Your task to perform on an android device: Add dell alienware to the cart on costco.com Image 0: 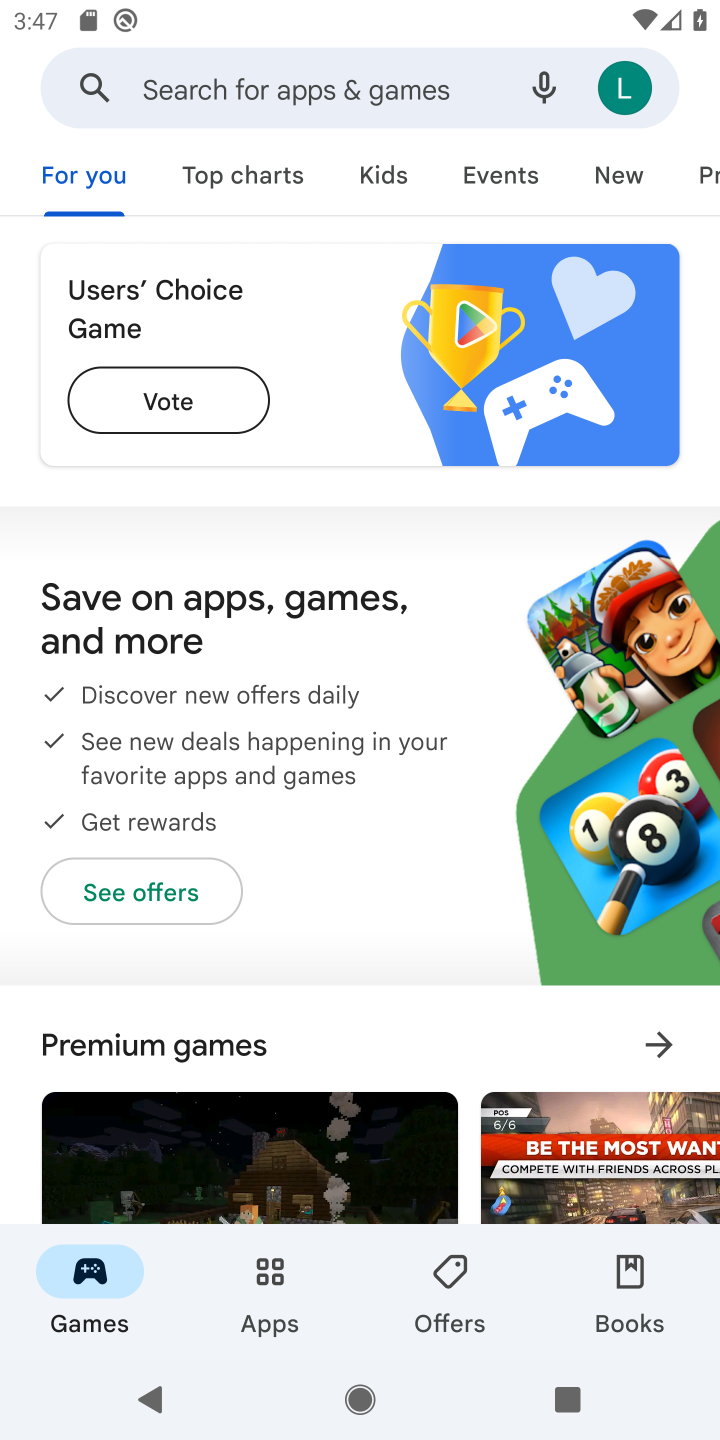
Step 0: press home button
Your task to perform on an android device: Add dell alienware to the cart on costco.com Image 1: 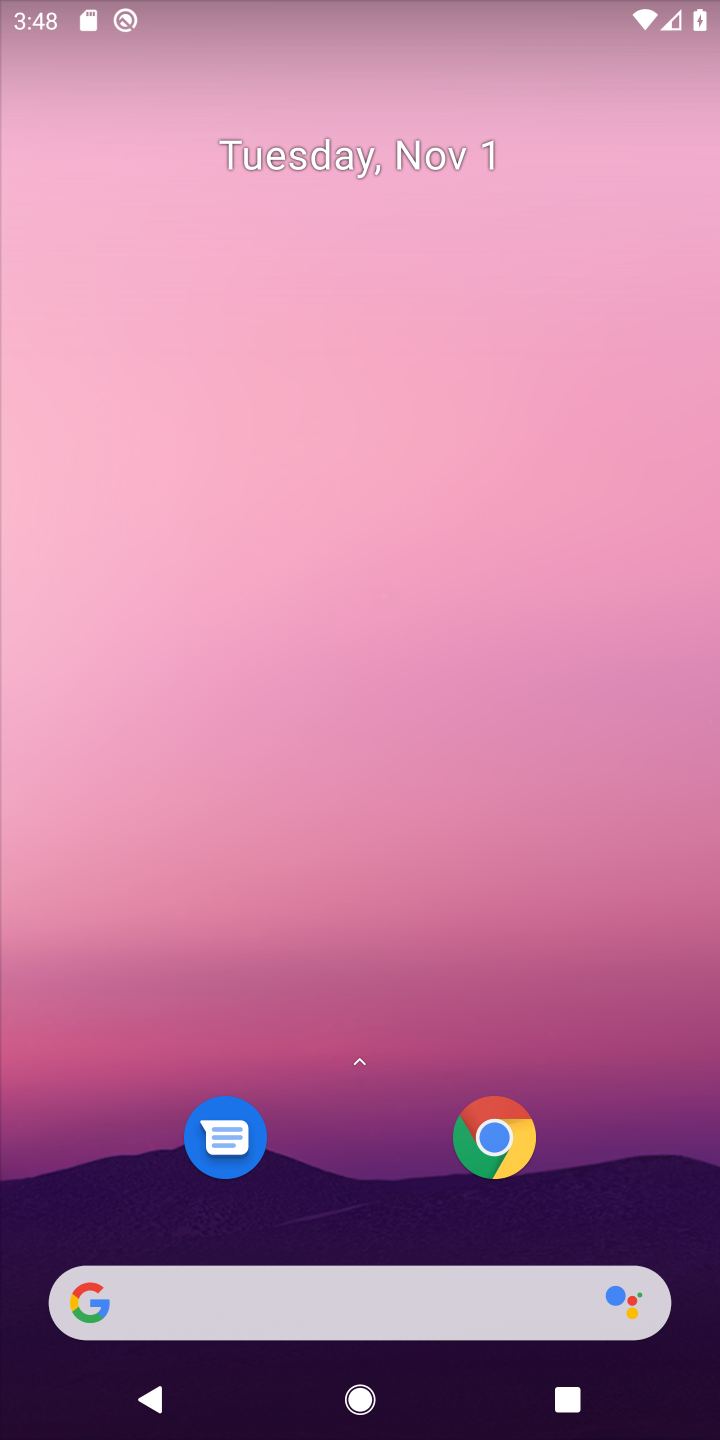
Step 1: click (375, 1308)
Your task to perform on an android device: Add dell alienware to the cart on costco.com Image 2: 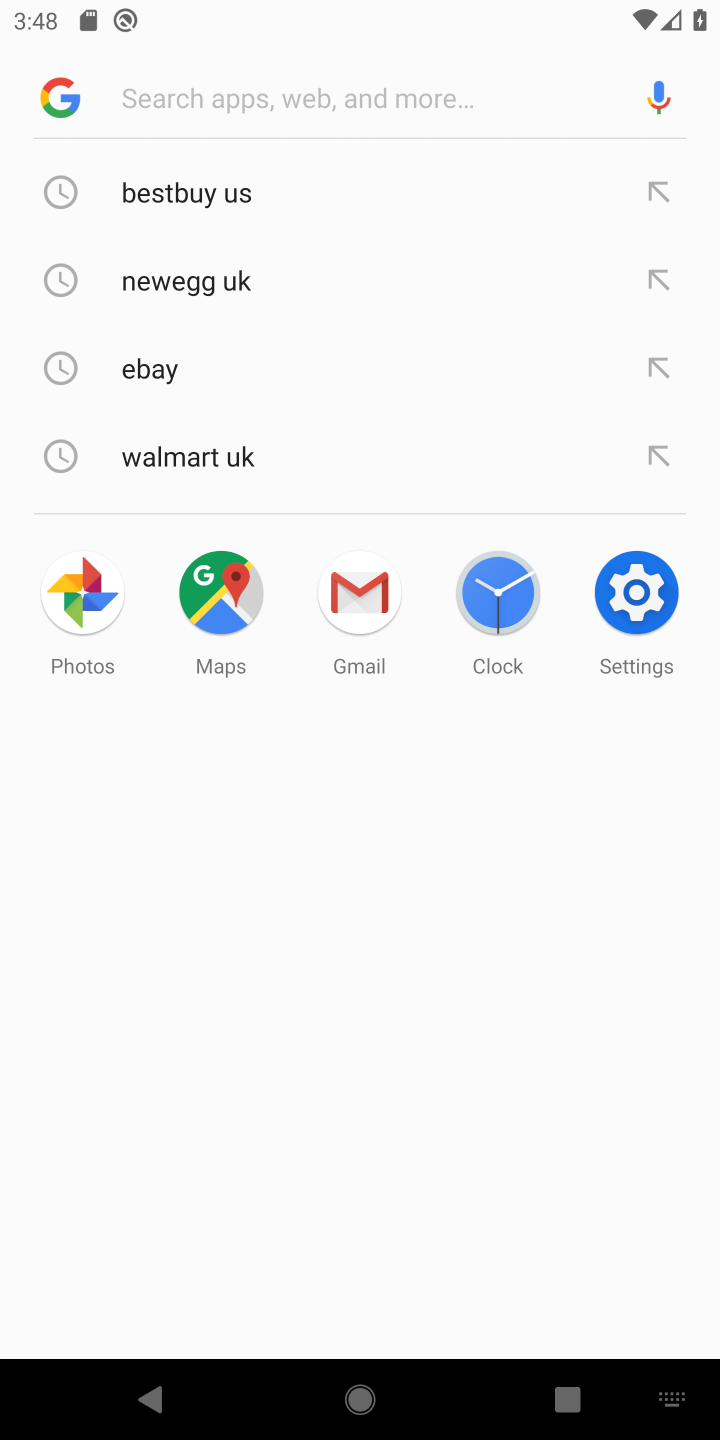
Step 2: type "costco"
Your task to perform on an android device: Add dell alienware to the cart on costco.com Image 3: 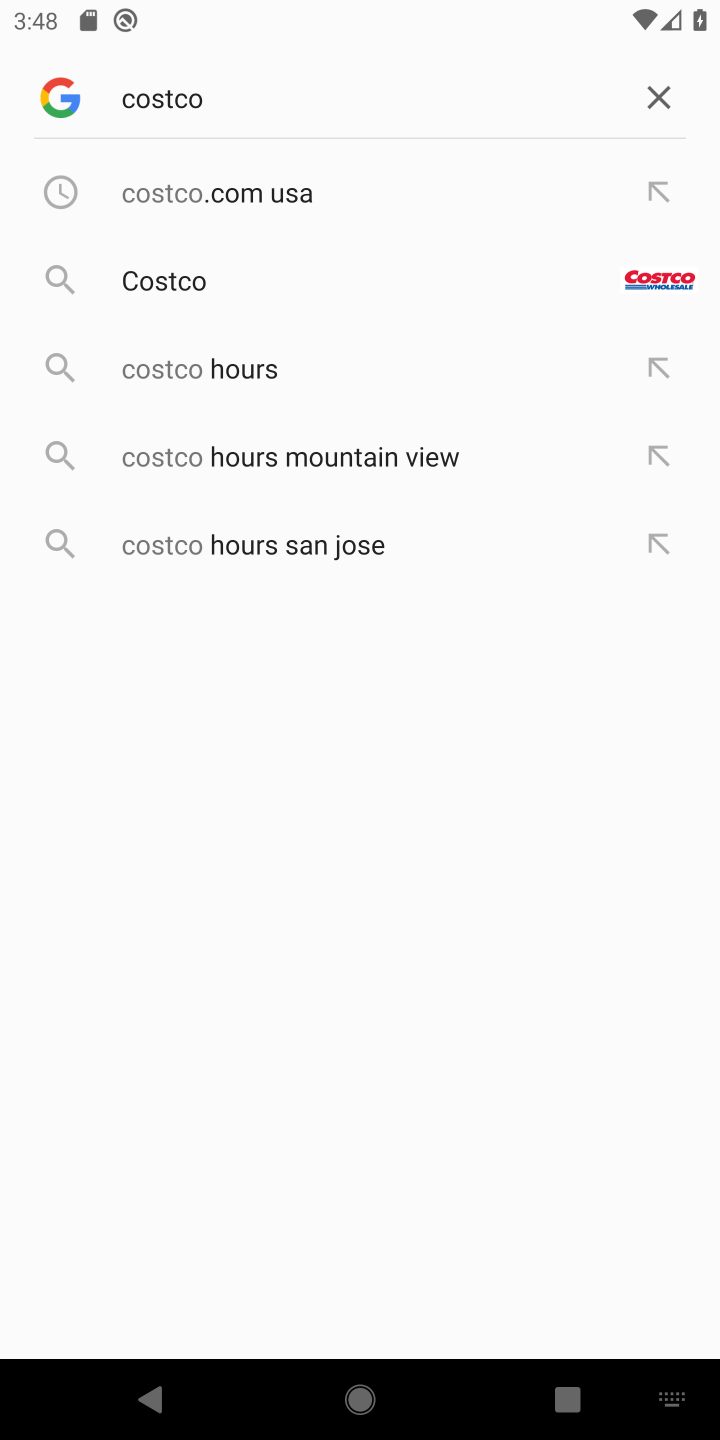
Step 3: click (180, 318)
Your task to perform on an android device: Add dell alienware to the cart on costco.com Image 4: 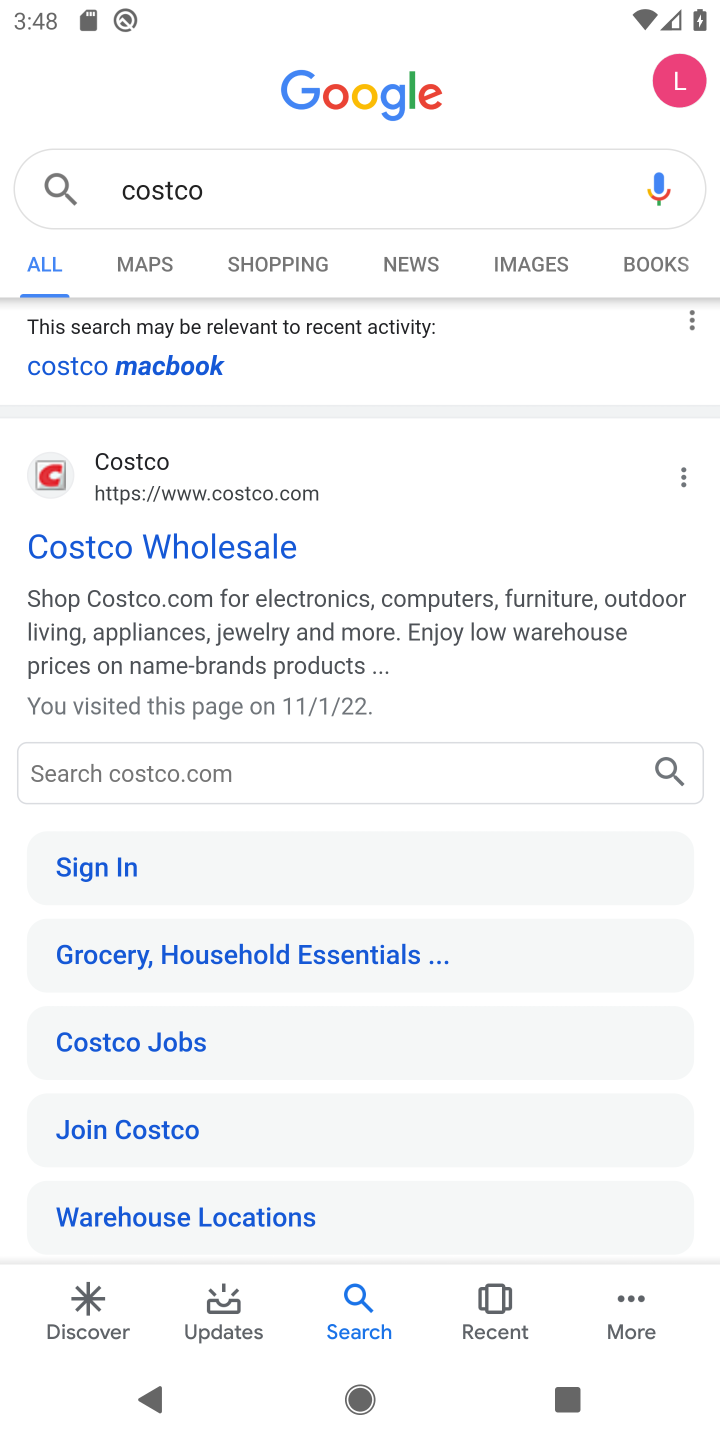
Step 4: click (237, 536)
Your task to perform on an android device: Add dell alienware to the cart on costco.com Image 5: 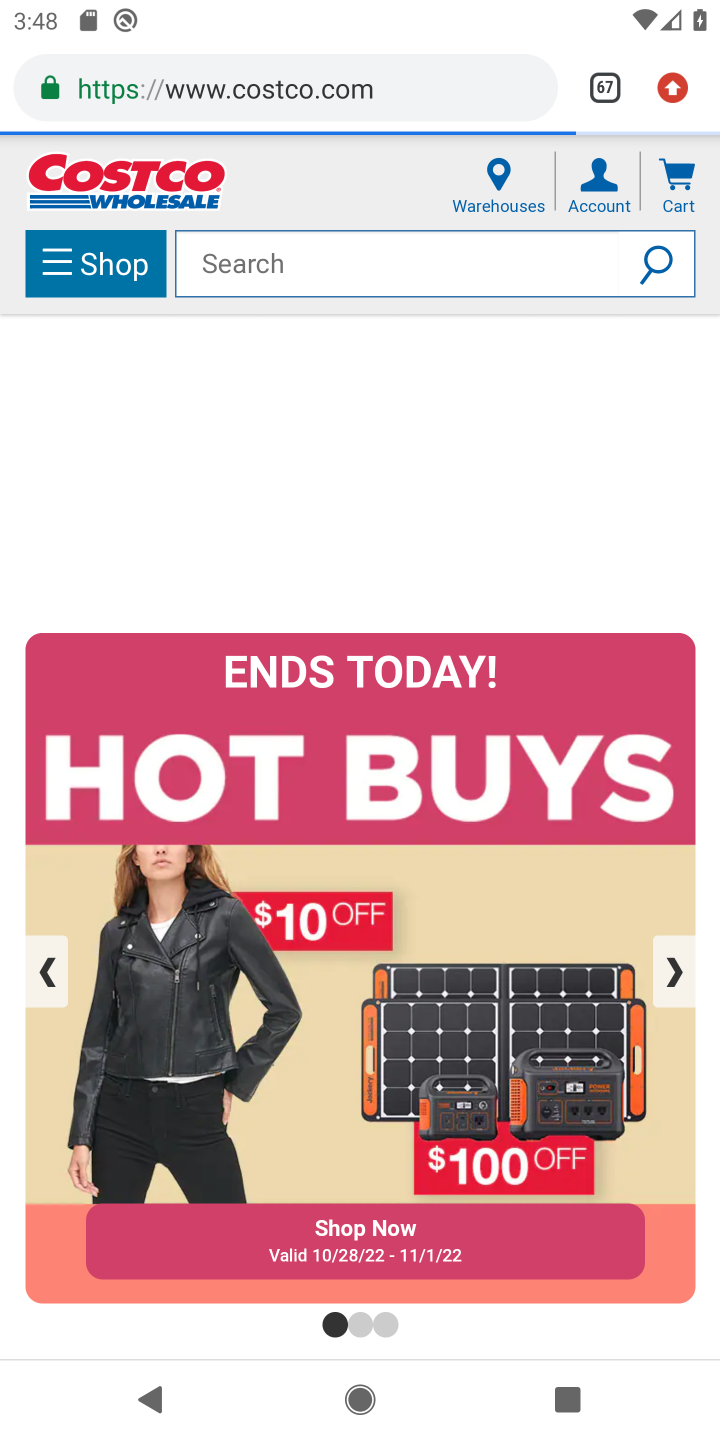
Step 5: click (334, 281)
Your task to perform on an android device: Add dell alienware to the cart on costco.com Image 6: 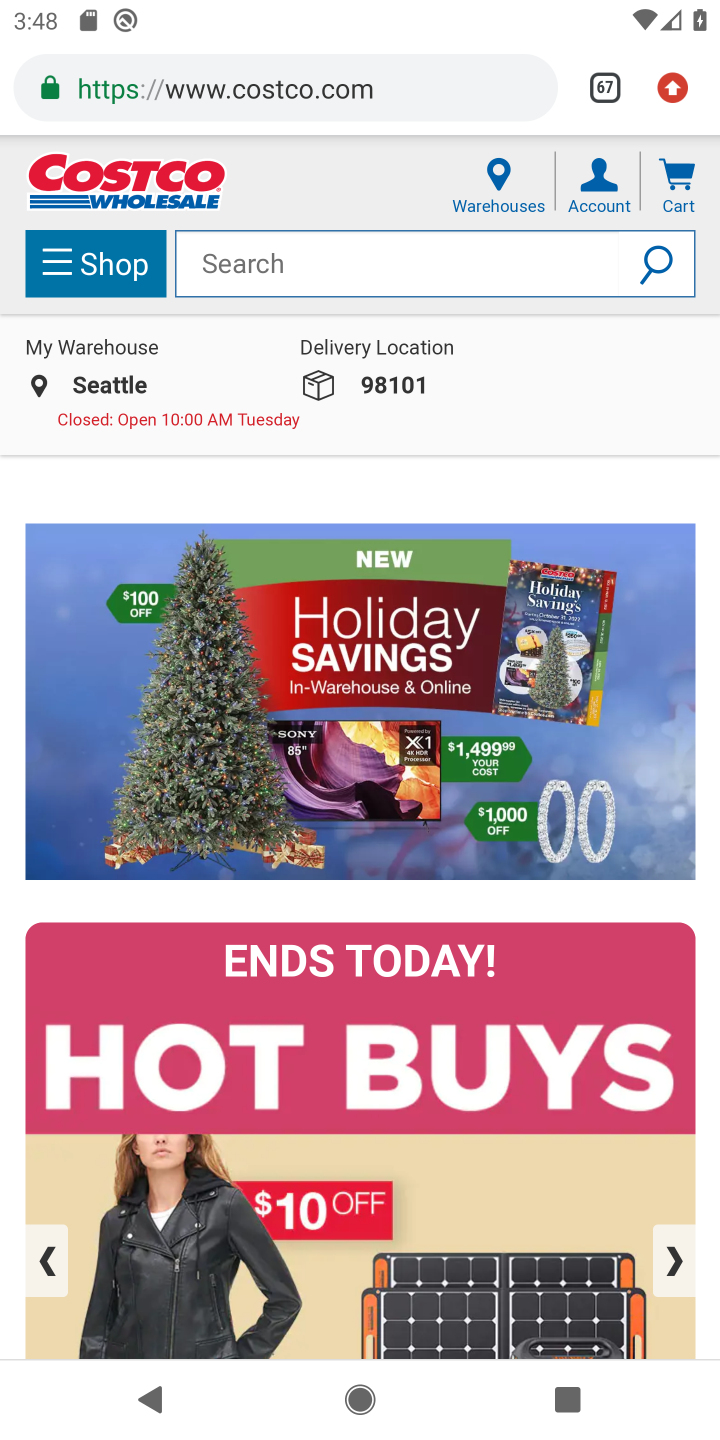
Step 6: type "dell alienware"
Your task to perform on an android device: Add dell alienware to the cart on costco.com Image 7: 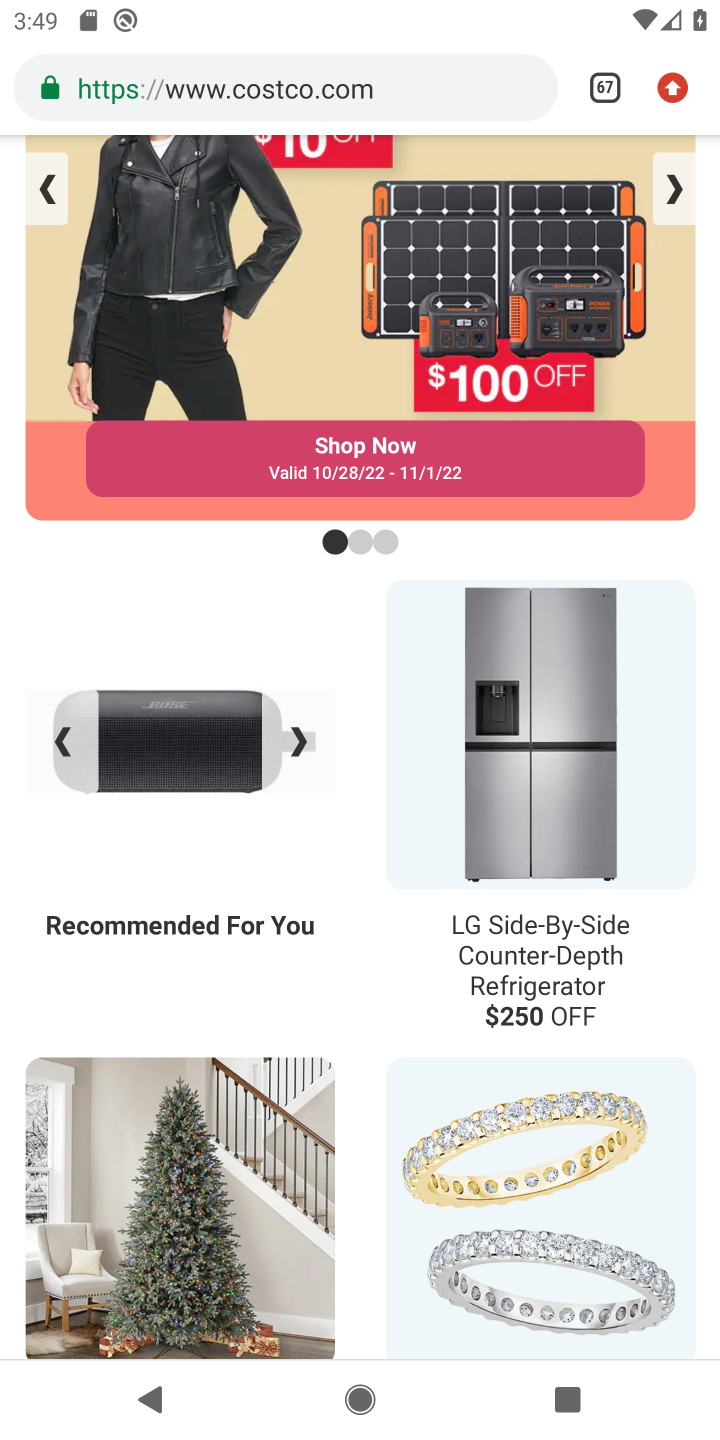
Step 7: task complete